Your task to perform on an android device: turn off data saver in the chrome app Image 0: 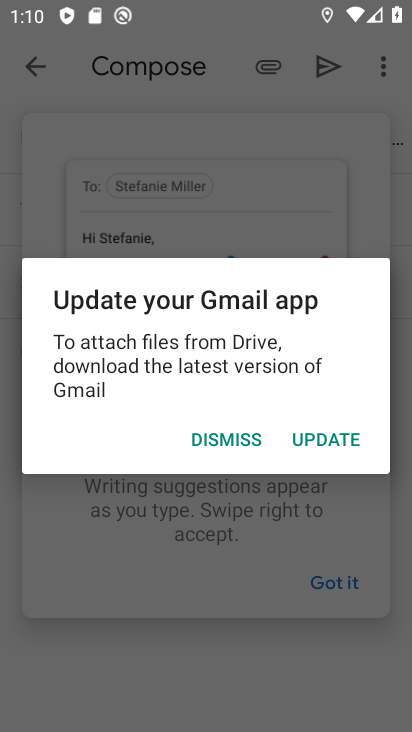
Step 0: press home button
Your task to perform on an android device: turn off data saver in the chrome app Image 1: 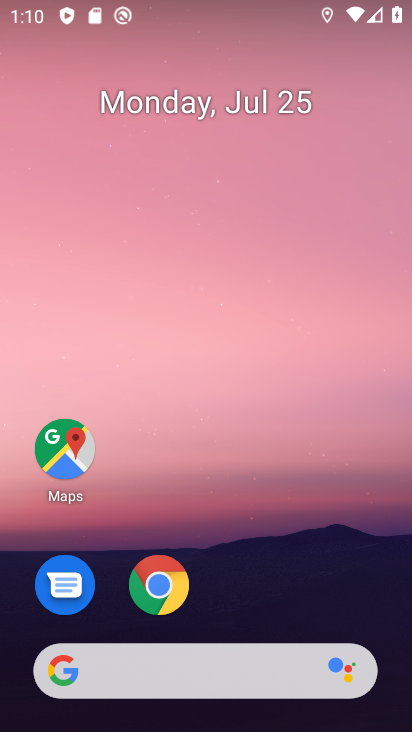
Step 1: click (153, 567)
Your task to perform on an android device: turn off data saver in the chrome app Image 2: 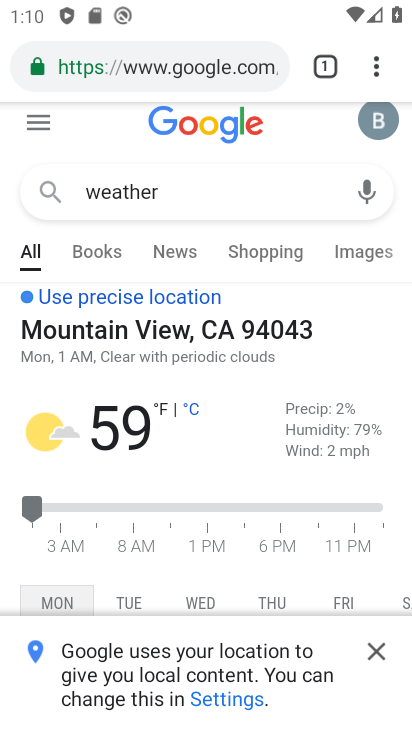
Step 2: drag from (380, 70) to (176, 586)
Your task to perform on an android device: turn off data saver in the chrome app Image 3: 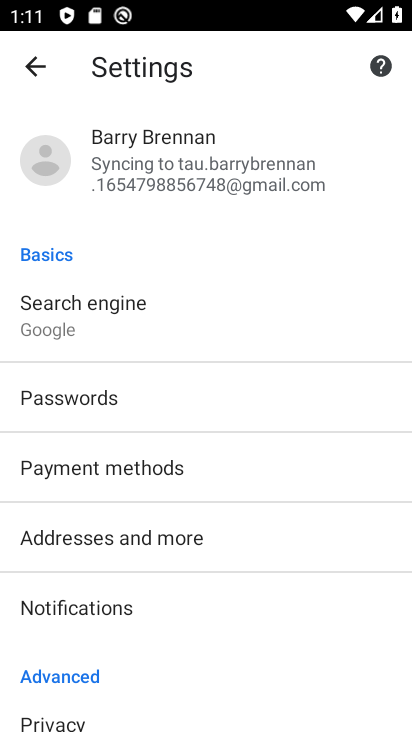
Step 3: drag from (158, 632) to (130, 81)
Your task to perform on an android device: turn off data saver in the chrome app Image 4: 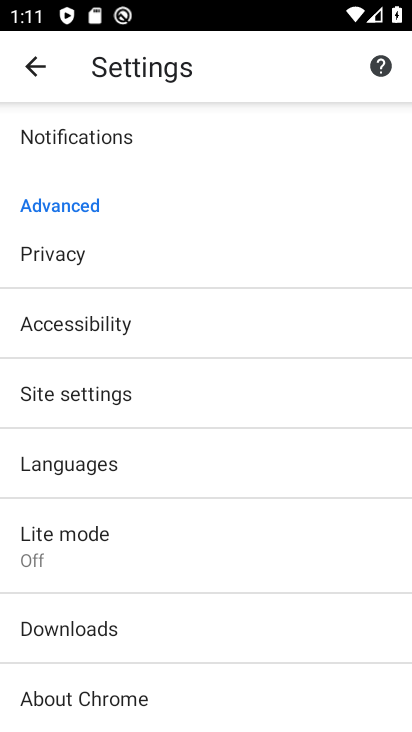
Step 4: click (139, 539)
Your task to perform on an android device: turn off data saver in the chrome app Image 5: 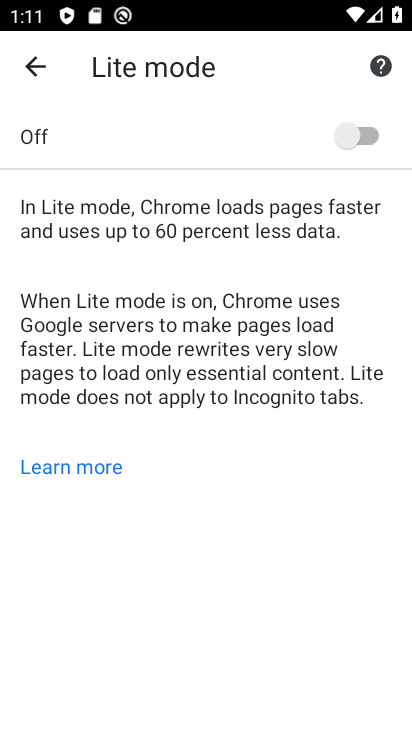
Step 5: task complete